Your task to perform on an android device: toggle airplane mode Image 0: 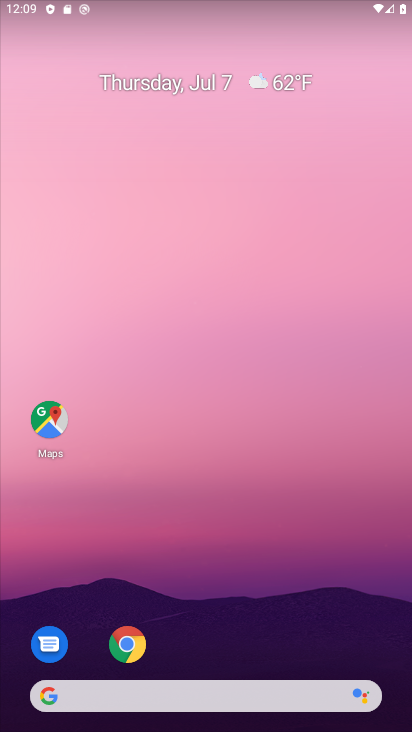
Step 0: drag from (389, 2) to (326, 582)
Your task to perform on an android device: toggle airplane mode Image 1: 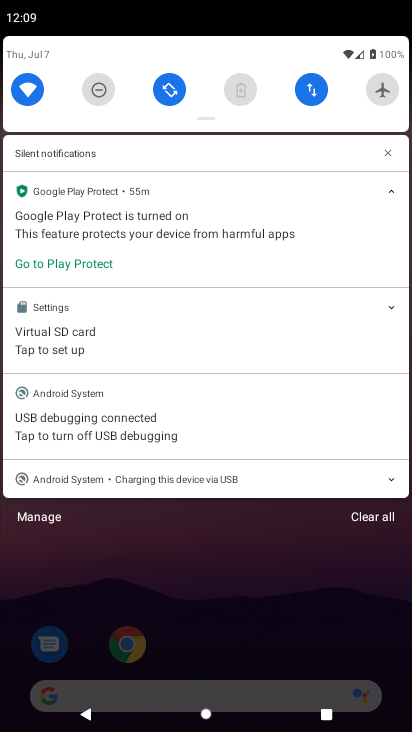
Step 1: click (375, 93)
Your task to perform on an android device: toggle airplane mode Image 2: 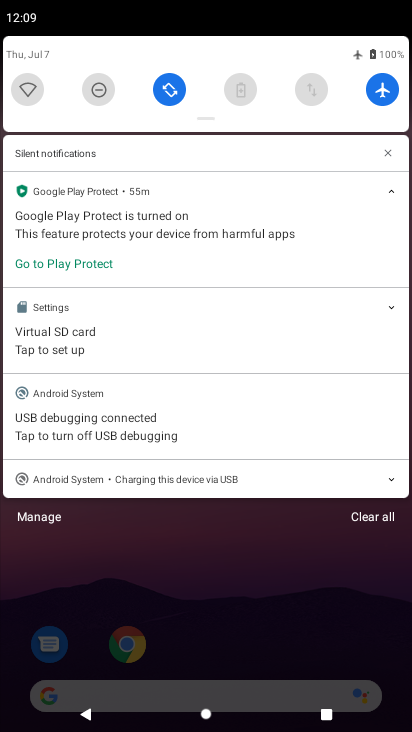
Step 2: task complete